Your task to perform on an android device: Search for Italian restaurants on Maps Image 0: 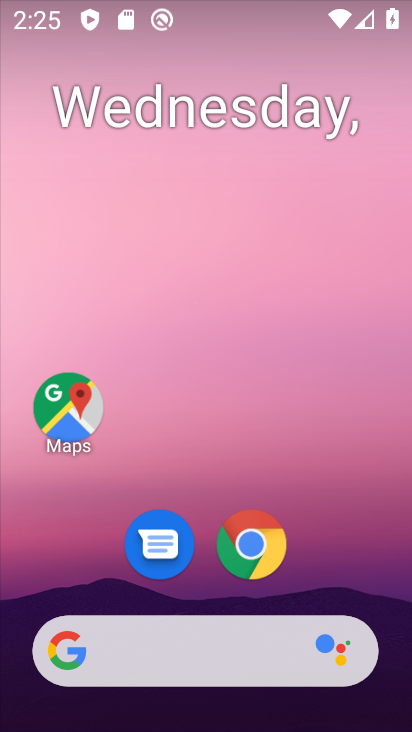
Step 0: press home button
Your task to perform on an android device: Search for Italian restaurants on Maps Image 1: 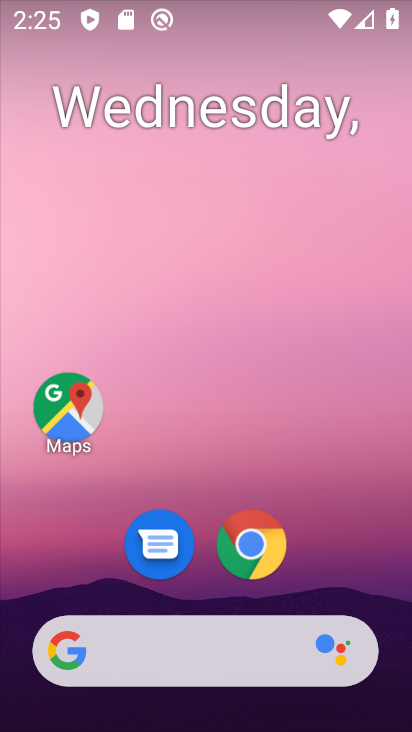
Step 1: drag from (387, 579) to (370, 105)
Your task to perform on an android device: Search for Italian restaurants on Maps Image 2: 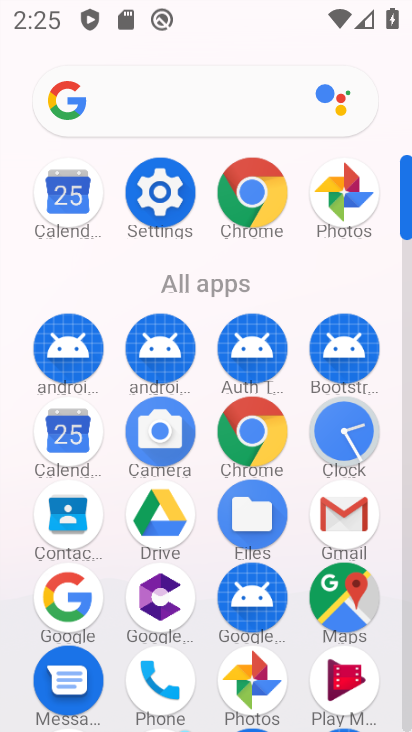
Step 2: click (339, 589)
Your task to perform on an android device: Search for Italian restaurants on Maps Image 3: 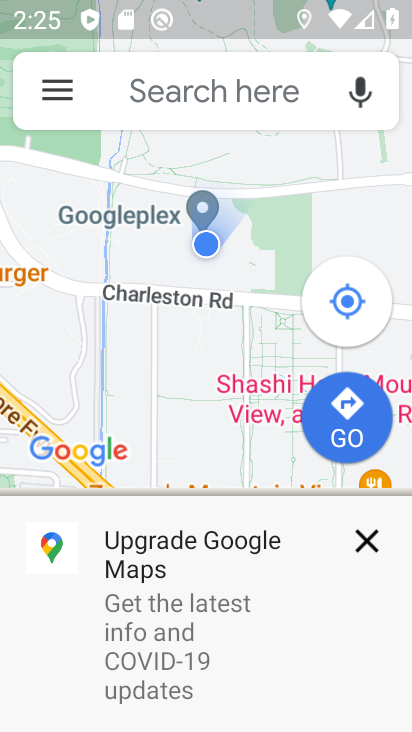
Step 3: click (137, 76)
Your task to perform on an android device: Search for Italian restaurants on Maps Image 4: 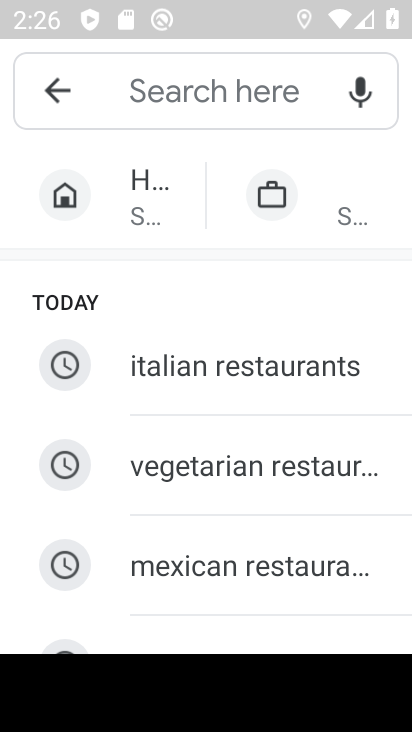
Step 4: type "italian restaurants "
Your task to perform on an android device: Search for Italian restaurants on Maps Image 5: 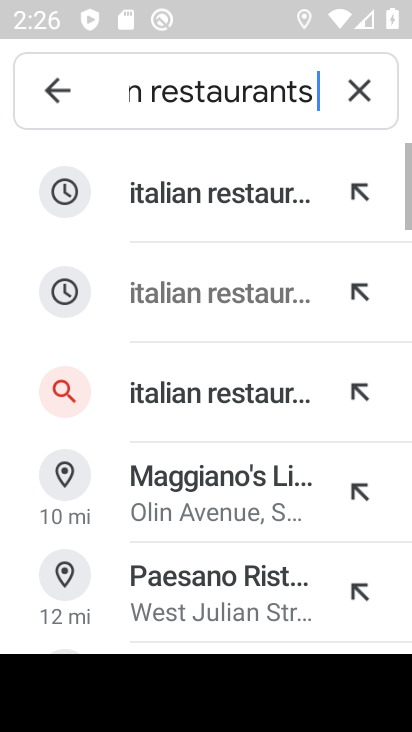
Step 5: click (176, 198)
Your task to perform on an android device: Search for Italian restaurants on Maps Image 6: 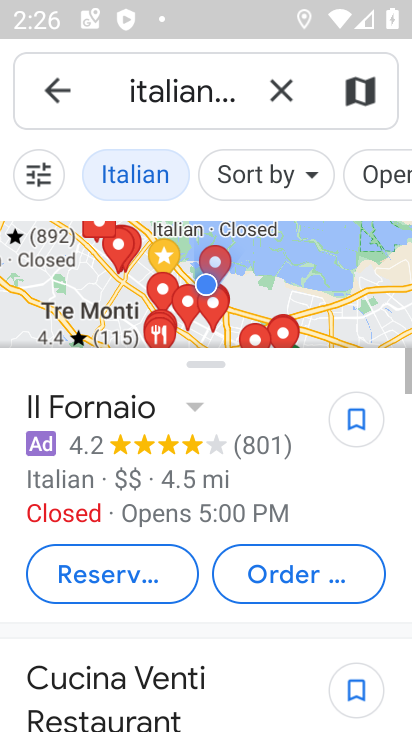
Step 6: task complete